Your task to perform on an android device: Toggle notifications for the Google Photos app Image 0: 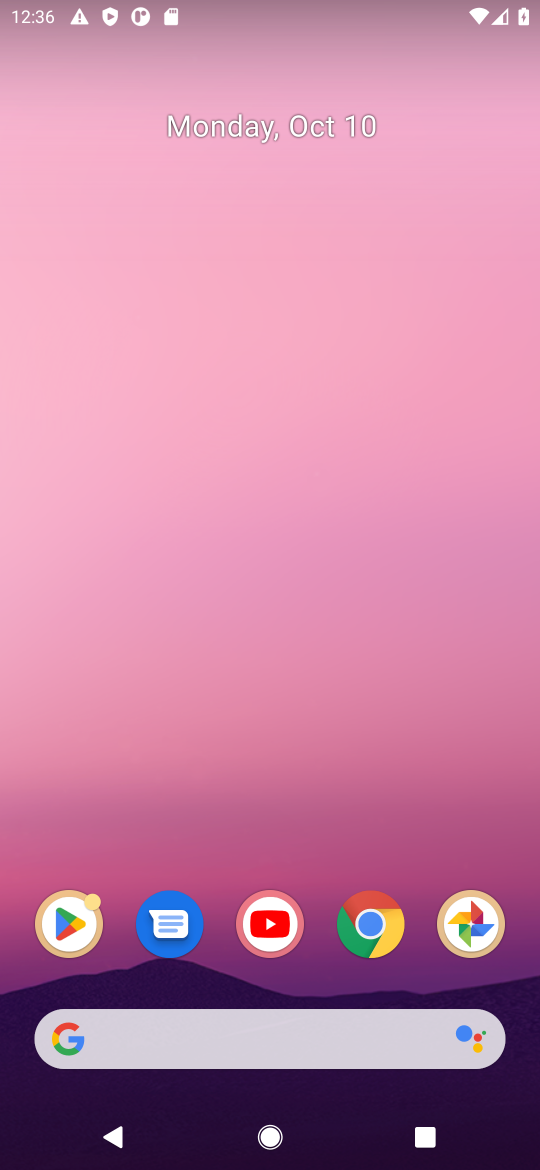
Step 0: drag from (467, 548) to (513, 3)
Your task to perform on an android device: Toggle notifications for the Google Photos app Image 1: 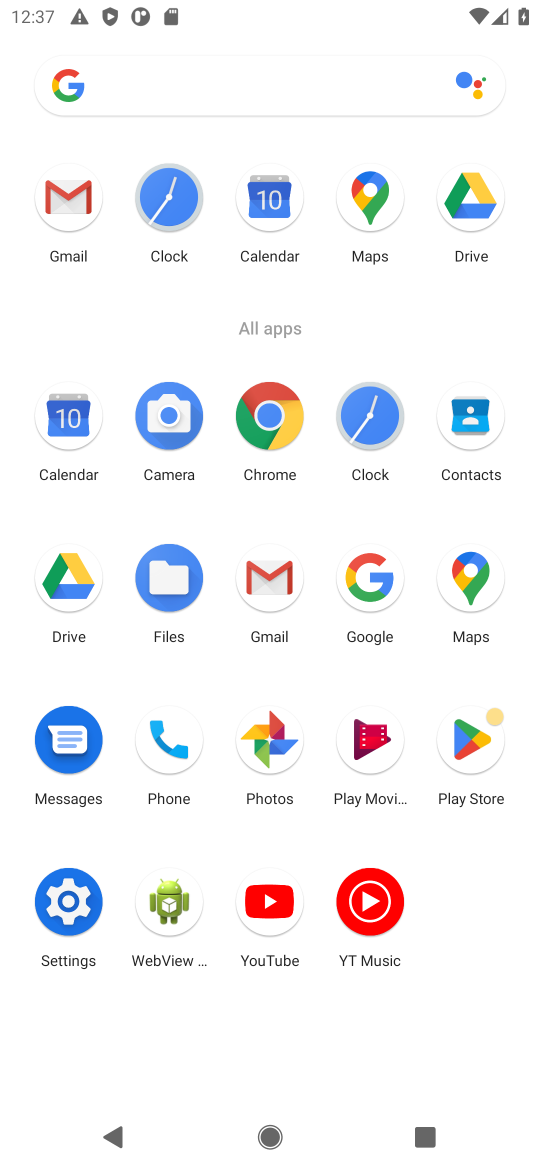
Step 1: click (486, 742)
Your task to perform on an android device: Toggle notifications for the Google Photos app Image 2: 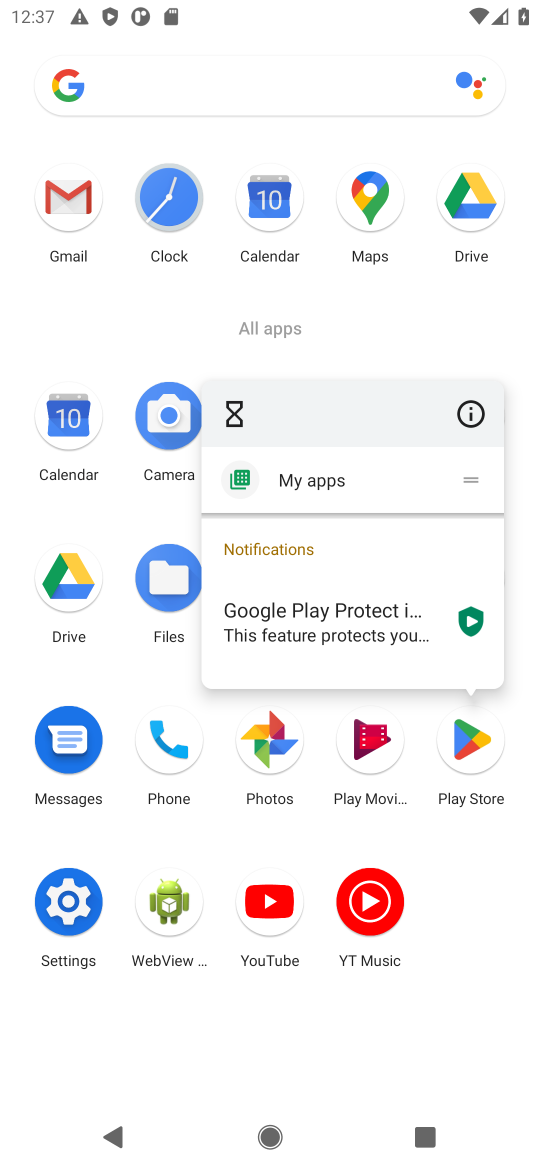
Step 2: click (485, 758)
Your task to perform on an android device: Toggle notifications for the Google Photos app Image 3: 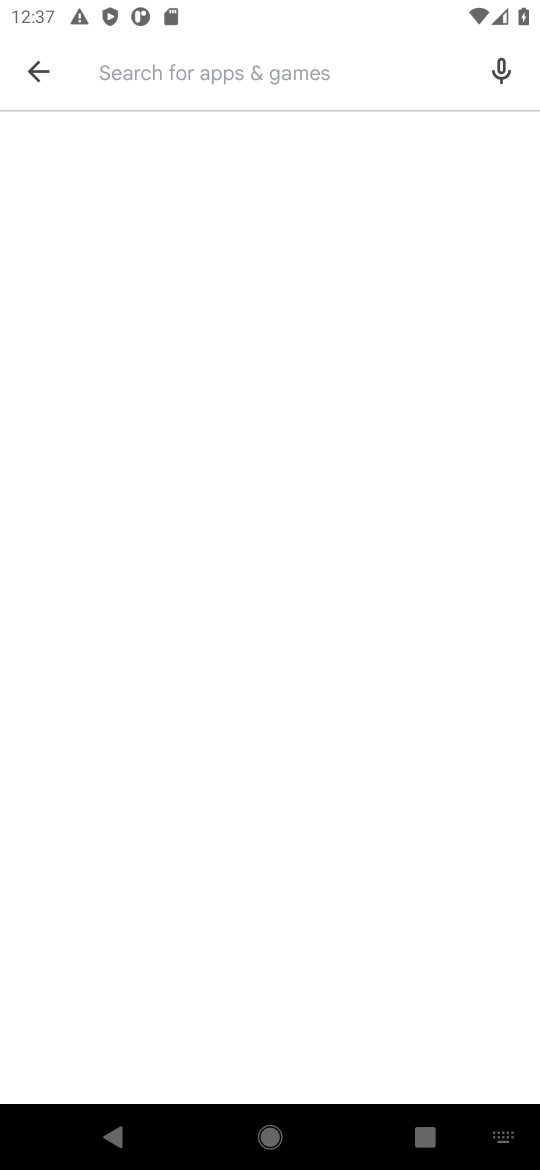
Step 3: press back button
Your task to perform on an android device: Toggle notifications for the Google Photos app Image 4: 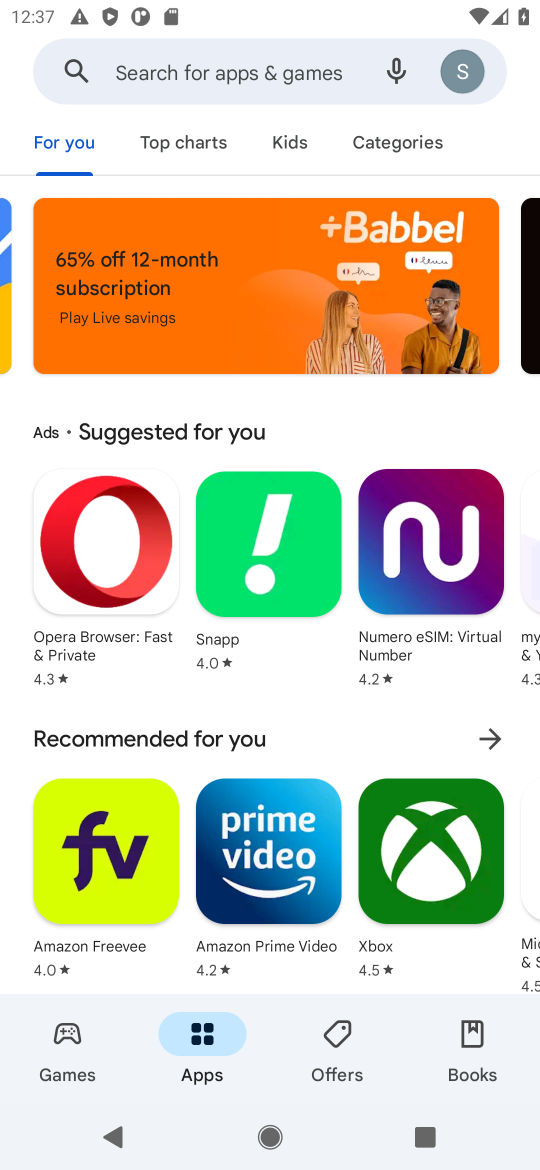
Step 4: press home button
Your task to perform on an android device: Toggle notifications for the Google Photos app Image 5: 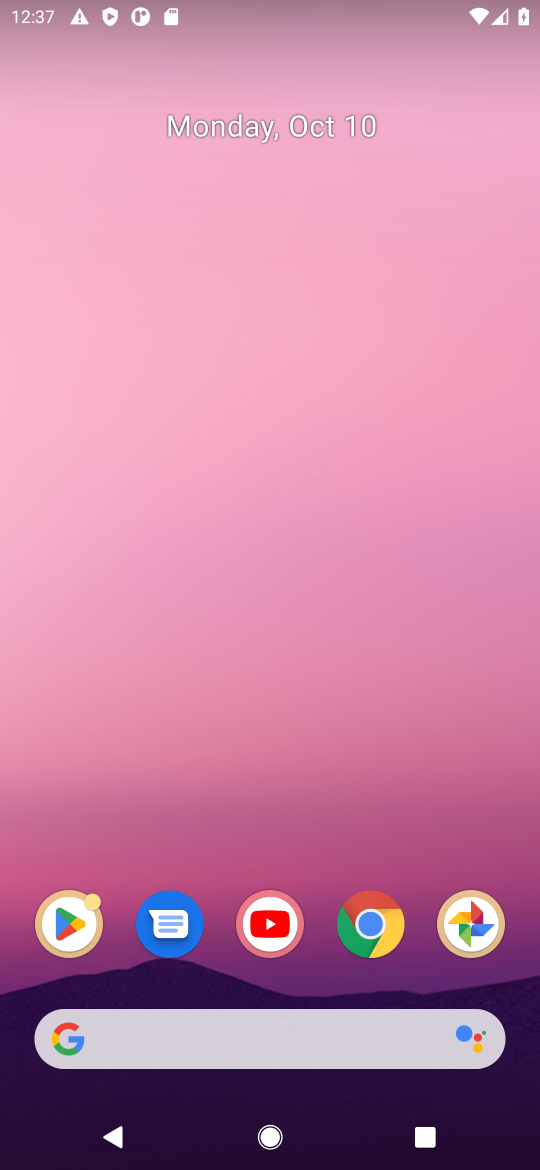
Step 5: drag from (218, 1010) to (293, 0)
Your task to perform on an android device: Toggle notifications for the Google Photos app Image 6: 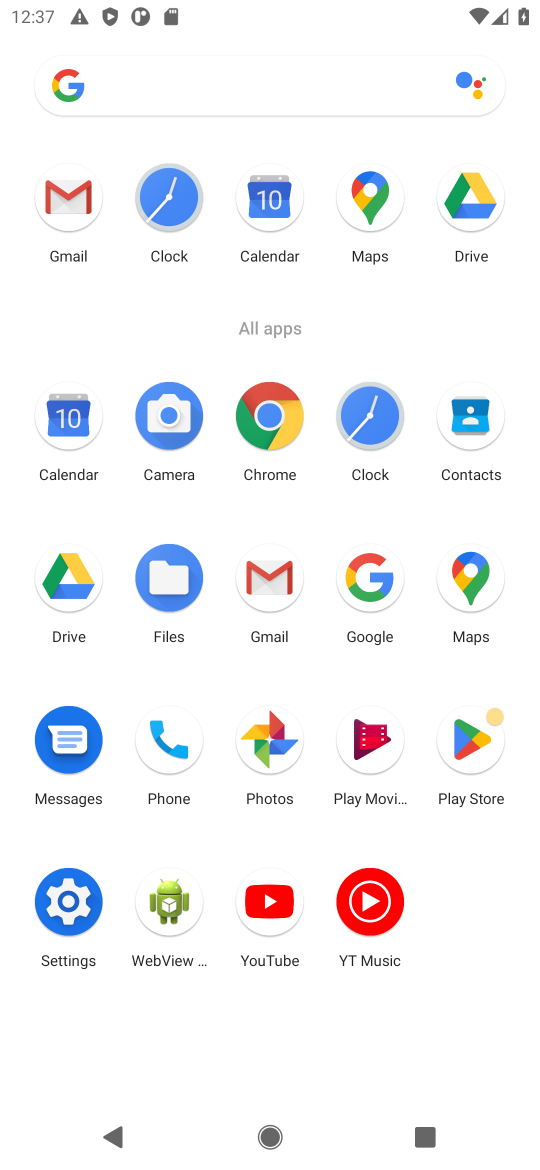
Step 6: click (274, 740)
Your task to perform on an android device: Toggle notifications for the Google Photos app Image 7: 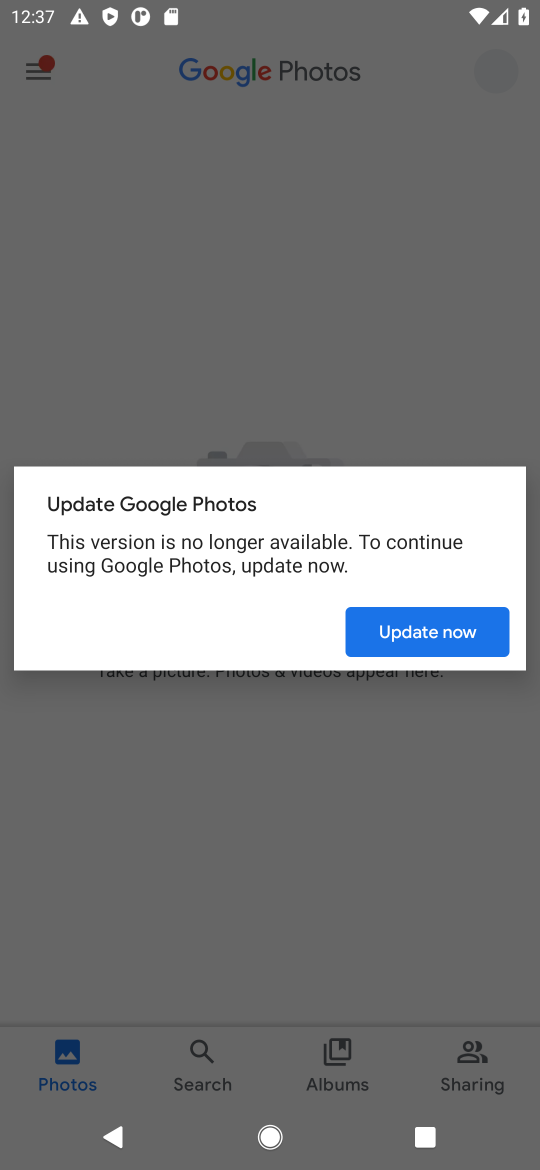
Step 7: click (402, 635)
Your task to perform on an android device: Toggle notifications for the Google Photos app Image 8: 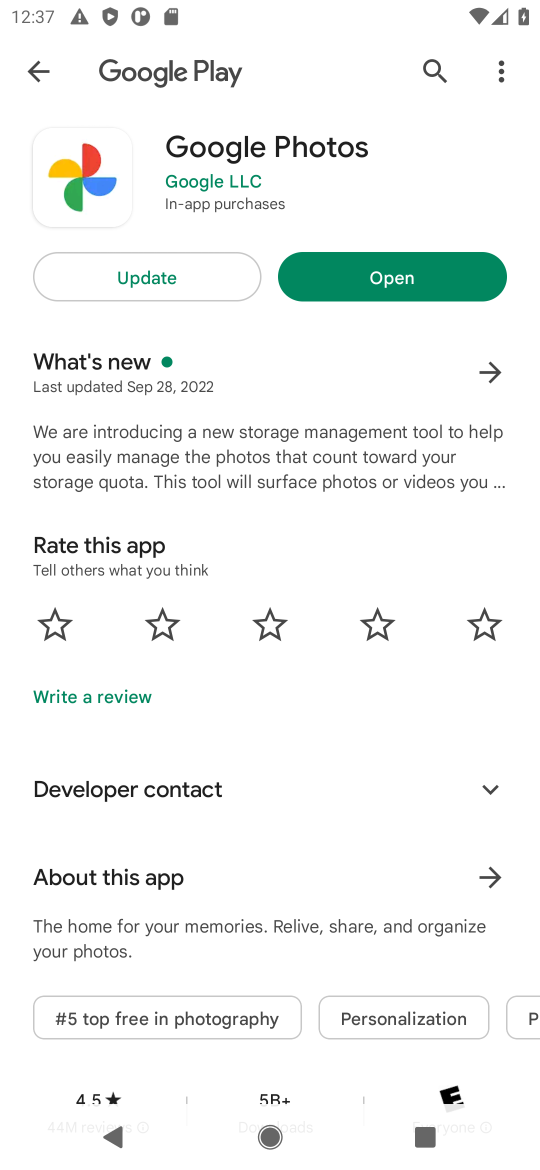
Step 8: click (378, 285)
Your task to perform on an android device: Toggle notifications for the Google Photos app Image 9: 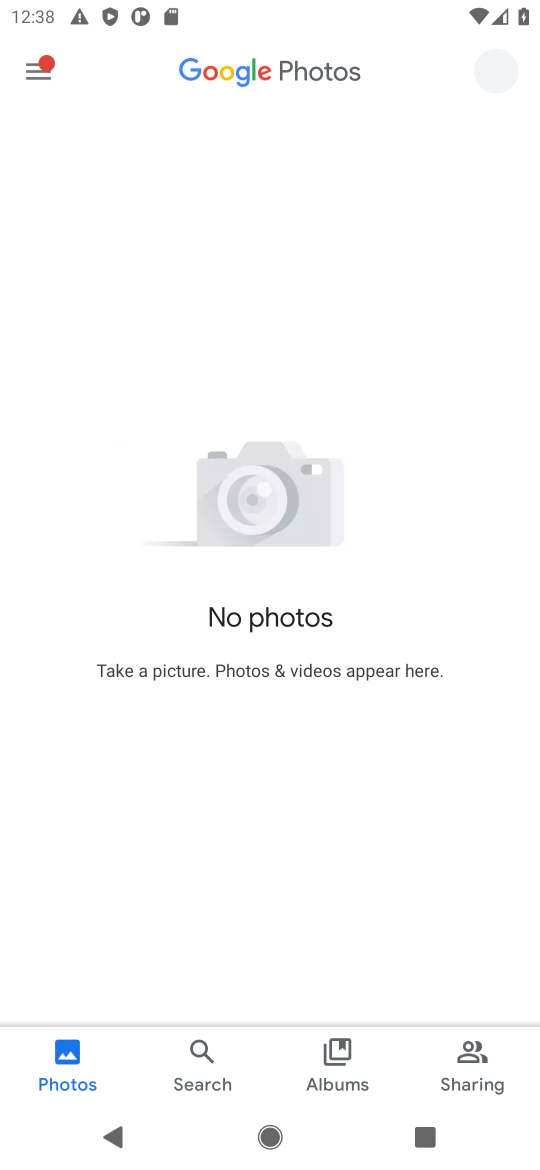
Step 9: click (48, 62)
Your task to perform on an android device: Toggle notifications for the Google Photos app Image 10: 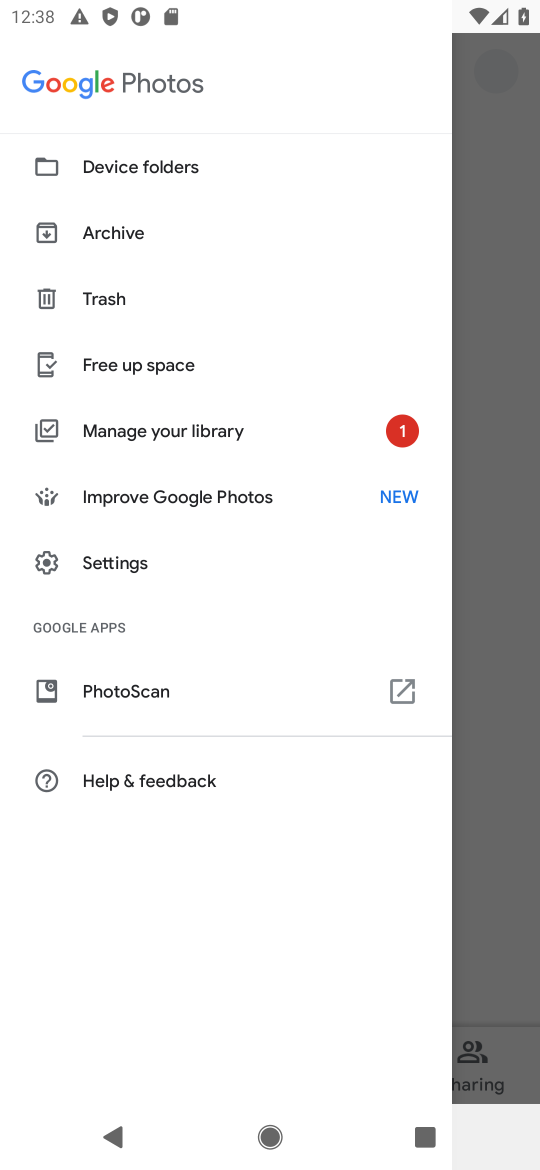
Step 10: click (147, 566)
Your task to perform on an android device: Toggle notifications for the Google Photos app Image 11: 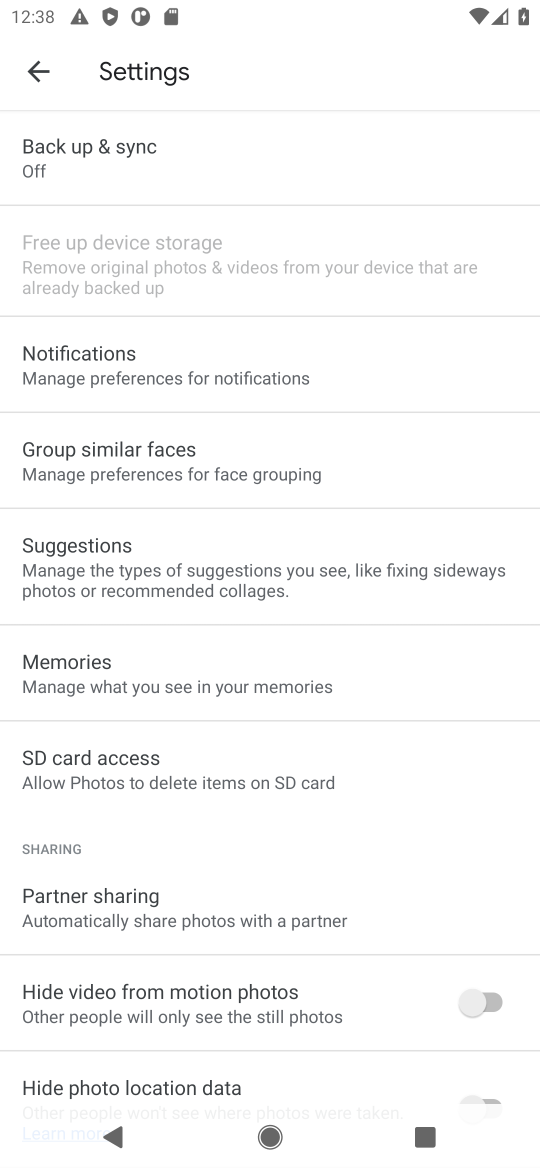
Step 11: click (112, 385)
Your task to perform on an android device: Toggle notifications for the Google Photos app Image 12: 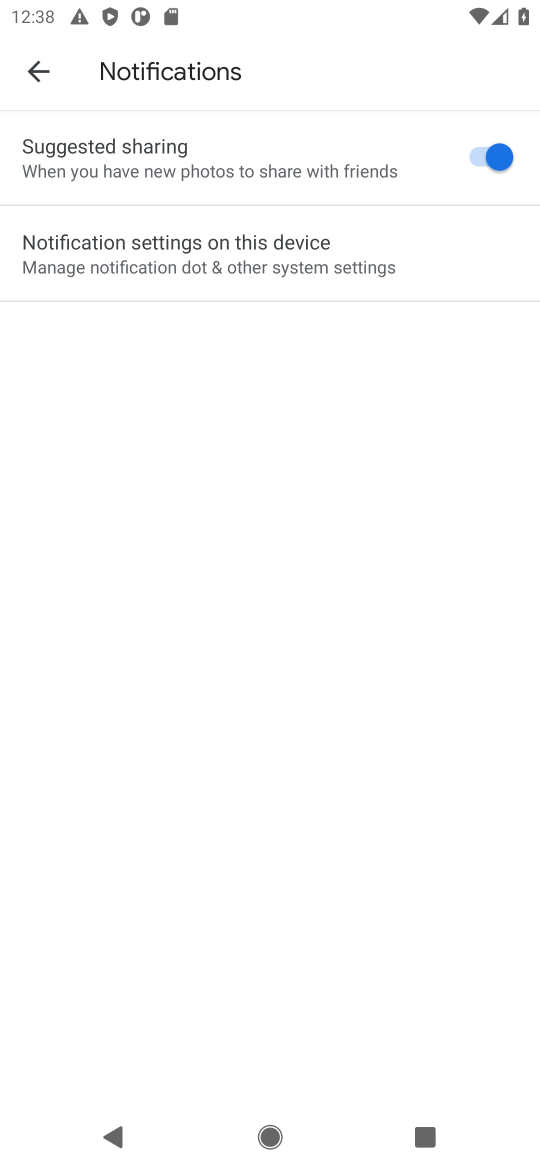
Step 12: click (306, 269)
Your task to perform on an android device: Toggle notifications for the Google Photos app Image 13: 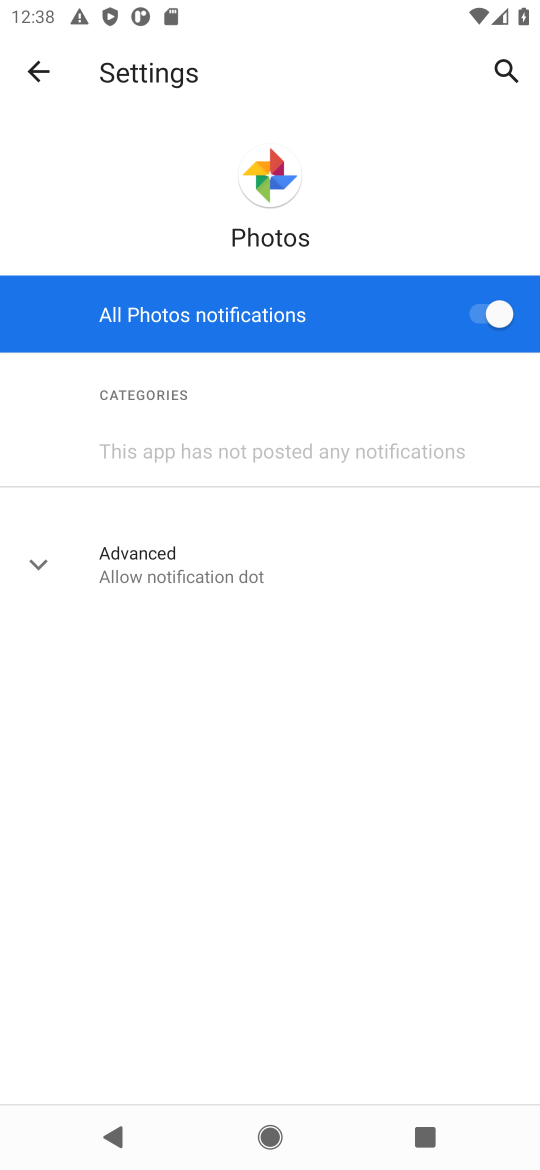
Step 13: click (493, 316)
Your task to perform on an android device: Toggle notifications for the Google Photos app Image 14: 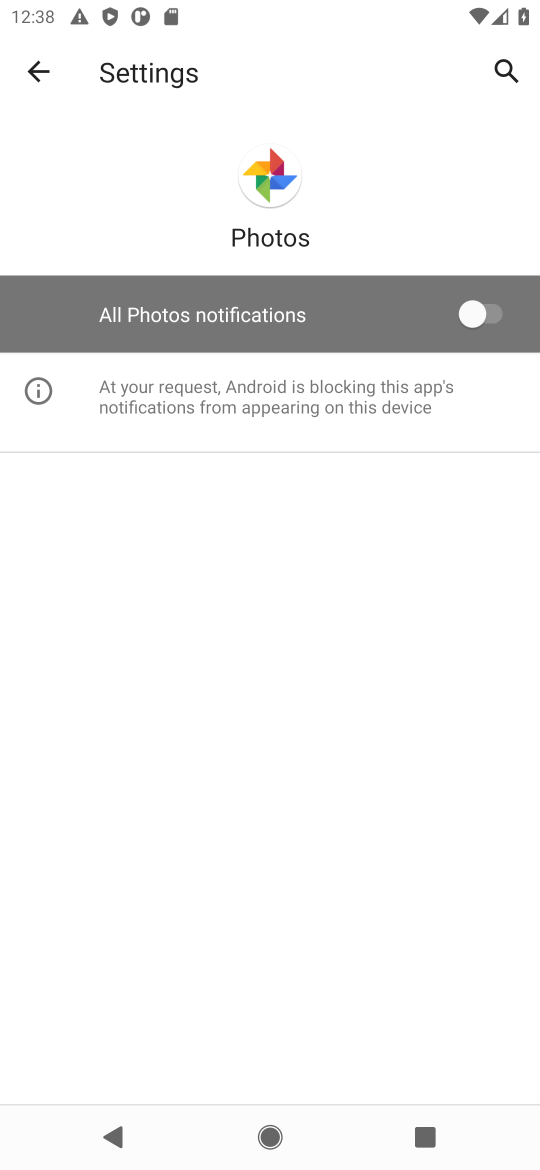
Step 14: task complete